Your task to perform on an android device: Go to network settings Image 0: 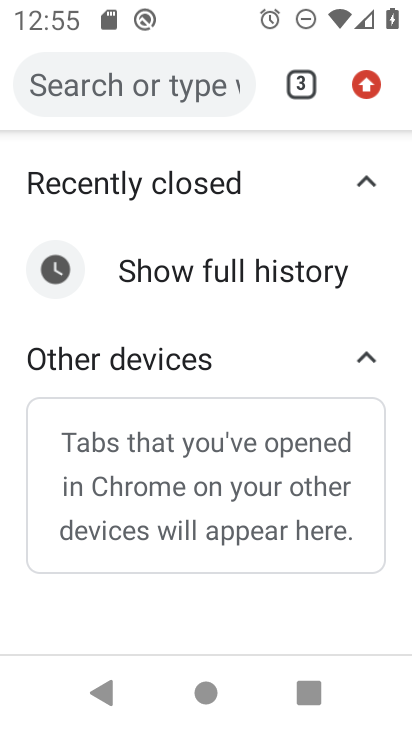
Step 0: drag from (284, 20) to (288, 596)
Your task to perform on an android device: Go to network settings Image 1: 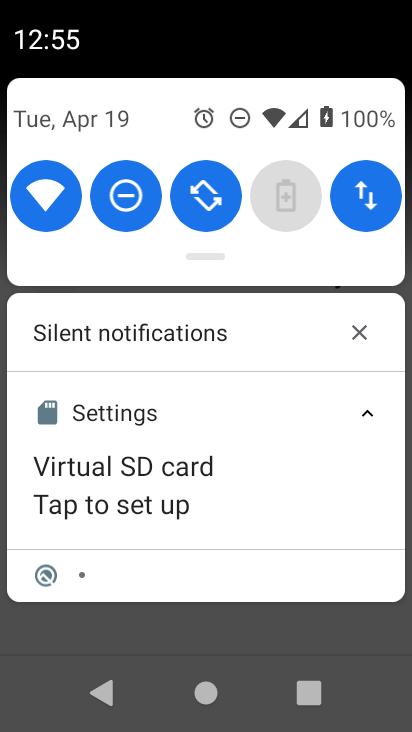
Step 1: drag from (164, 140) to (215, 653)
Your task to perform on an android device: Go to network settings Image 2: 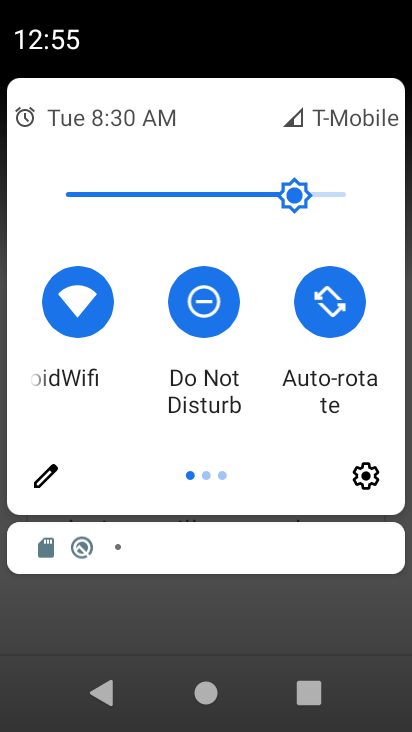
Step 2: click (375, 474)
Your task to perform on an android device: Go to network settings Image 3: 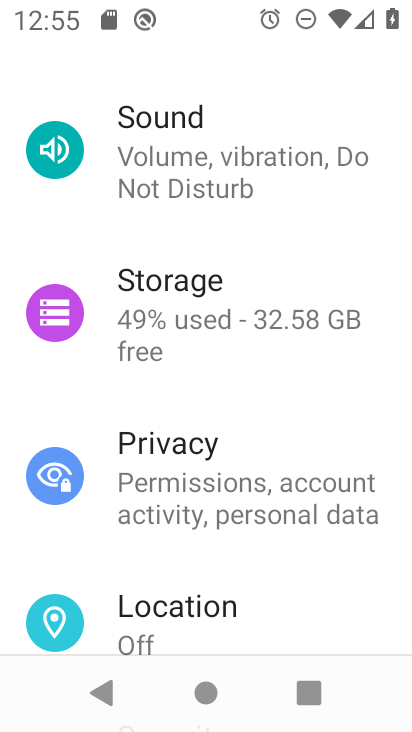
Step 3: drag from (249, 167) to (240, 604)
Your task to perform on an android device: Go to network settings Image 4: 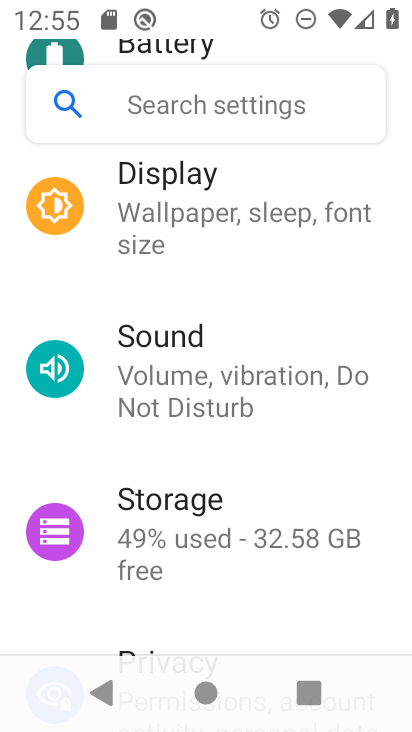
Step 4: drag from (165, 196) to (172, 654)
Your task to perform on an android device: Go to network settings Image 5: 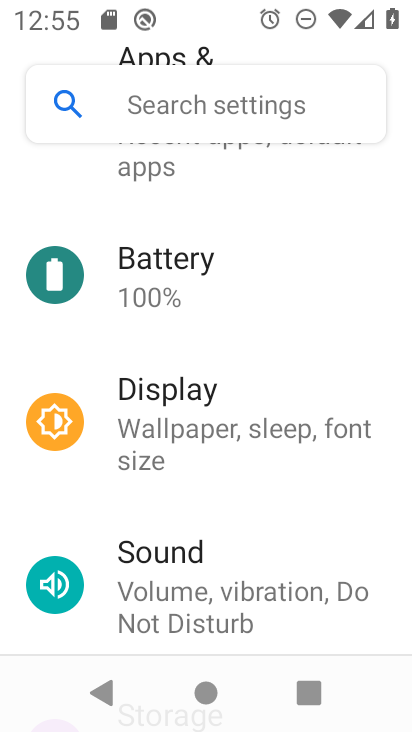
Step 5: drag from (259, 211) to (320, 653)
Your task to perform on an android device: Go to network settings Image 6: 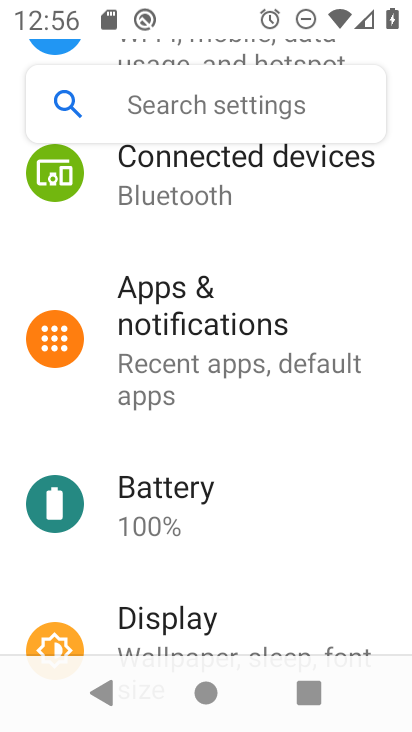
Step 6: drag from (220, 174) to (238, 684)
Your task to perform on an android device: Go to network settings Image 7: 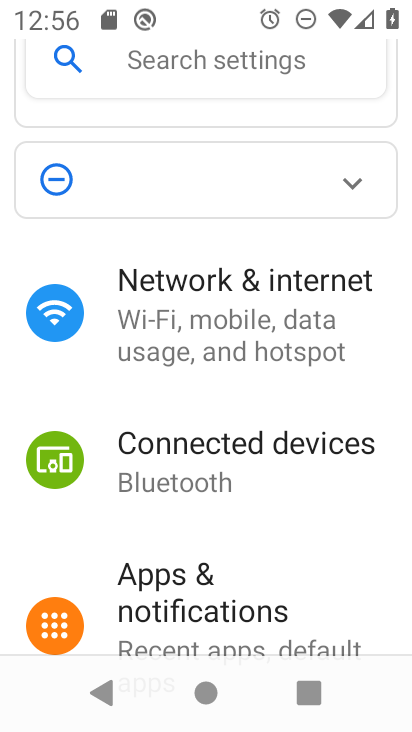
Step 7: click (179, 356)
Your task to perform on an android device: Go to network settings Image 8: 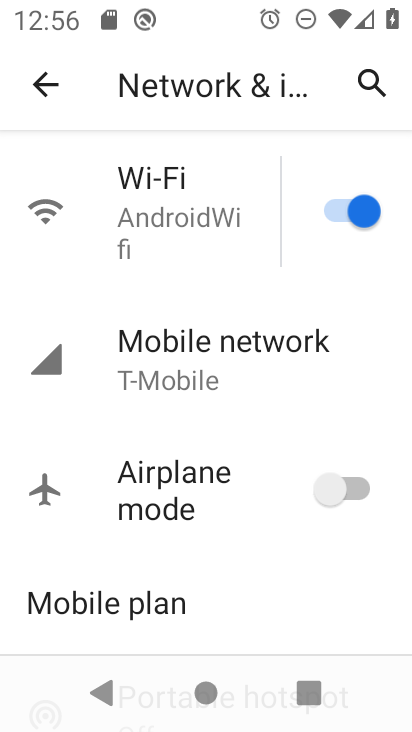
Step 8: click (179, 356)
Your task to perform on an android device: Go to network settings Image 9: 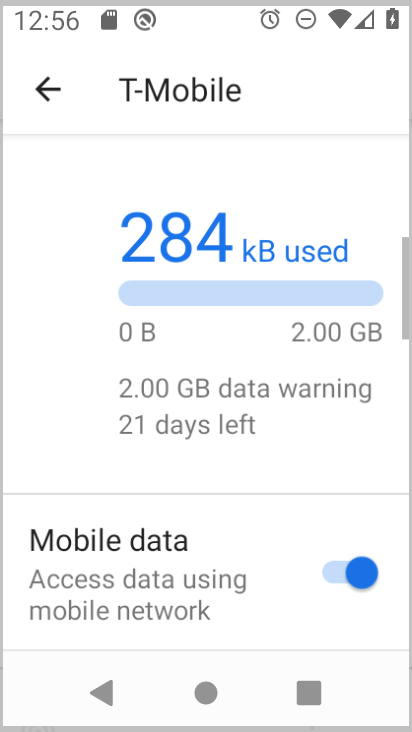
Step 9: task complete